Your task to perform on an android device: find which apps use the phone's location Image 0: 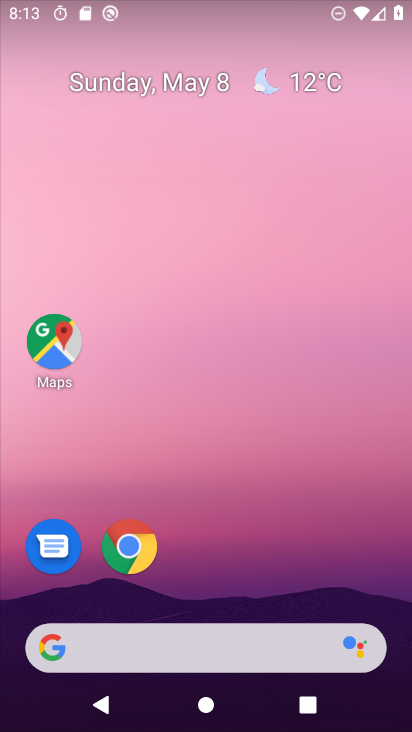
Step 0: drag from (218, 523) to (180, 17)
Your task to perform on an android device: find which apps use the phone's location Image 1: 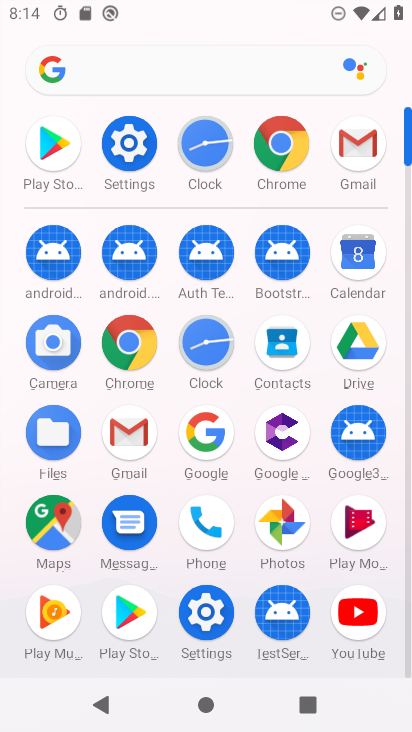
Step 1: click (126, 143)
Your task to perform on an android device: find which apps use the phone's location Image 2: 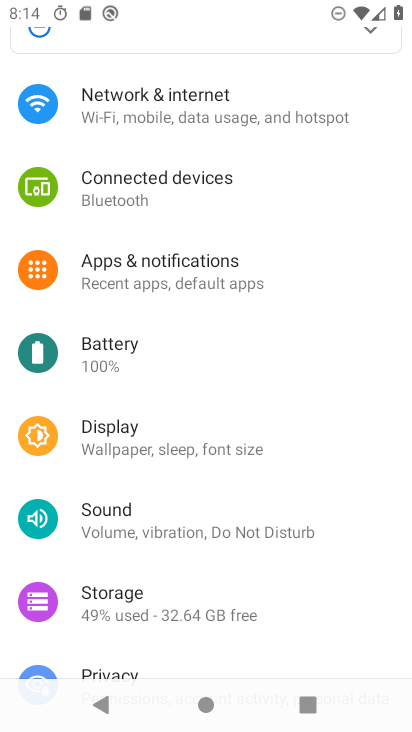
Step 2: drag from (251, 444) to (262, 114)
Your task to perform on an android device: find which apps use the phone's location Image 3: 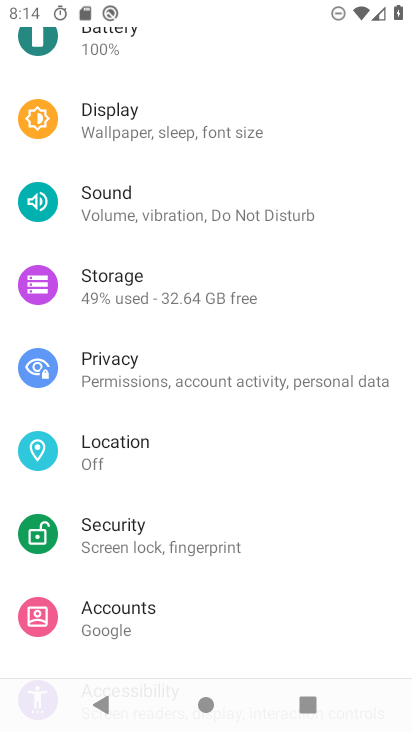
Step 3: click (169, 453)
Your task to perform on an android device: find which apps use the phone's location Image 4: 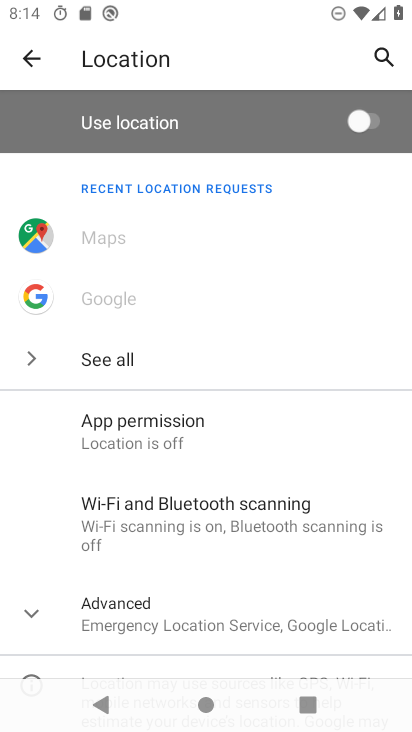
Step 4: click (169, 429)
Your task to perform on an android device: find which apps use the phone's location Image 5: 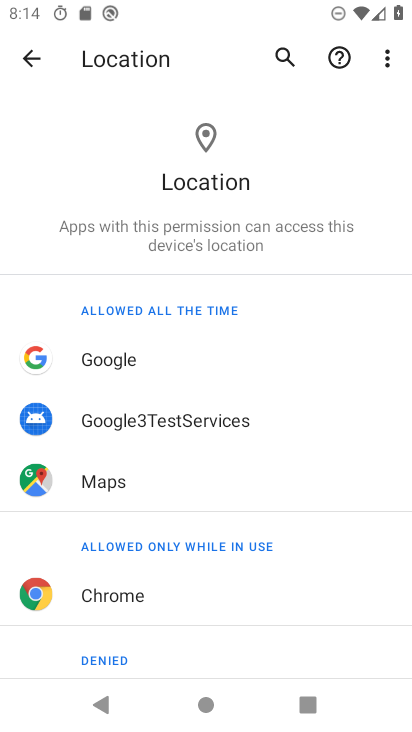
Step 5: click (27, 51)
Your task to perform on an android device: find which apps use the phone's location Image 6: 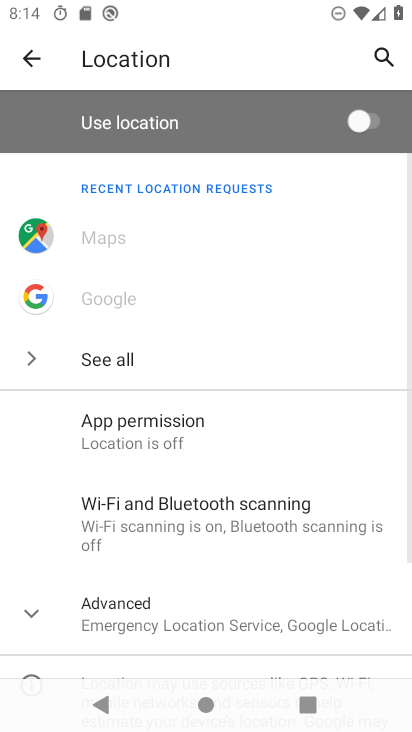
Step 6: click (373, 113)
Your task to perform on an android device: find which apps use the phone's location Image 7: 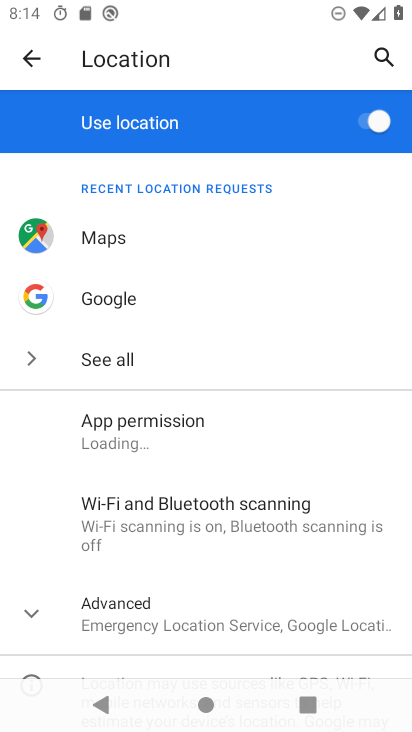
Step 7: click (183, 422)
Your task to perform on an android device: find which apps use the phone's location Image 8: 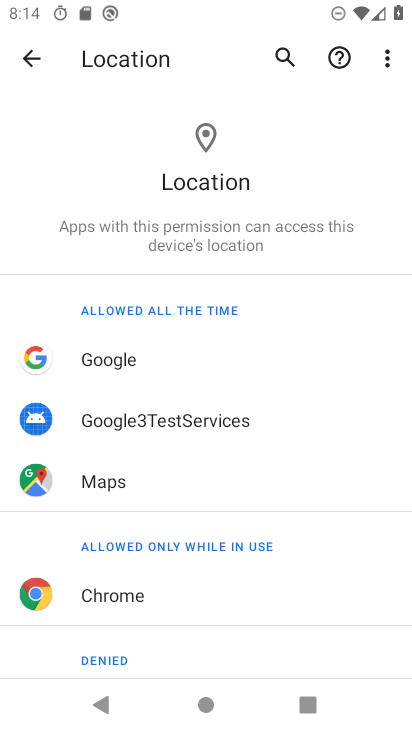
Step 8: task complete